Your task to perform on an android device: Go to Reddit.com Image 0: 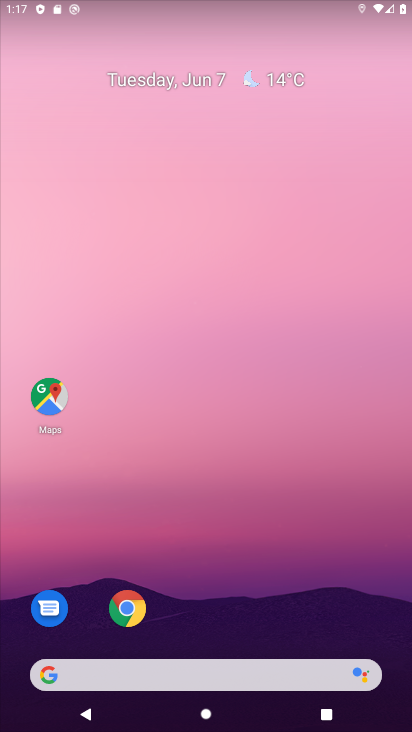
Step 0: drag from (357, 611) to (353, 99)
Your task to perform on an android device: Go to Reddit.com Image 1: 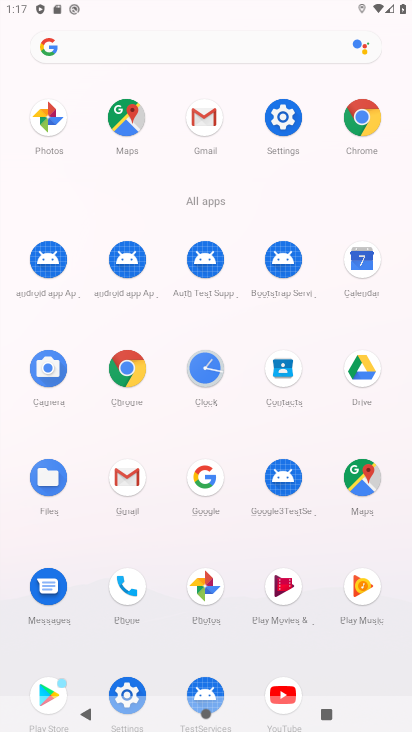
Step 1: drag from (177, 632) to (156, 179)
Your task to perform on an android device: Go to Reddit.com Image 2: 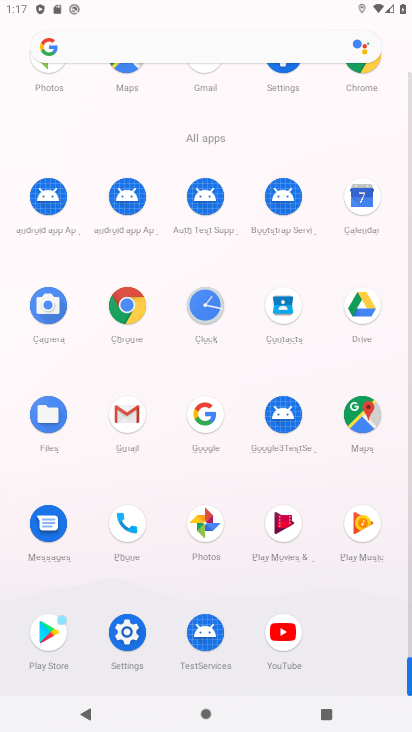
Step 2: click (133, 315)
Your task to perform on an android device: Go to Reddit.com Image 3: 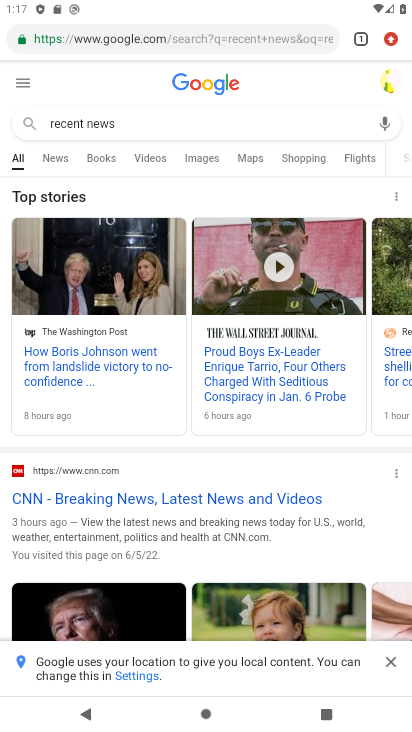
Step 3: click (248, 46)
Your task to perform on an android device: Go to Reddit.com Image 4: 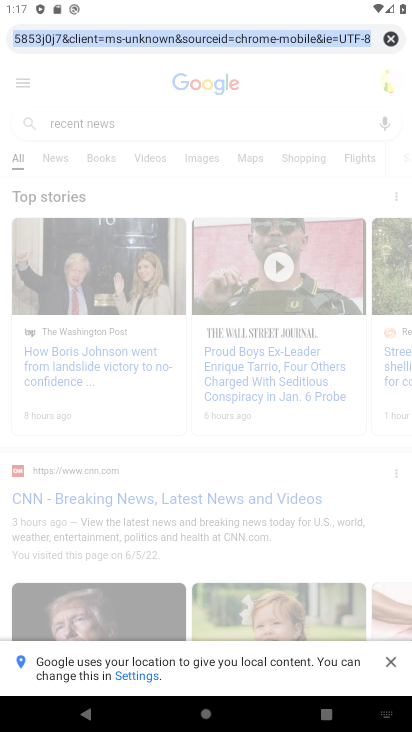
Step 4: click (396, 35)
Your task to perform on an android device: Go to Reddit.com Image 5: 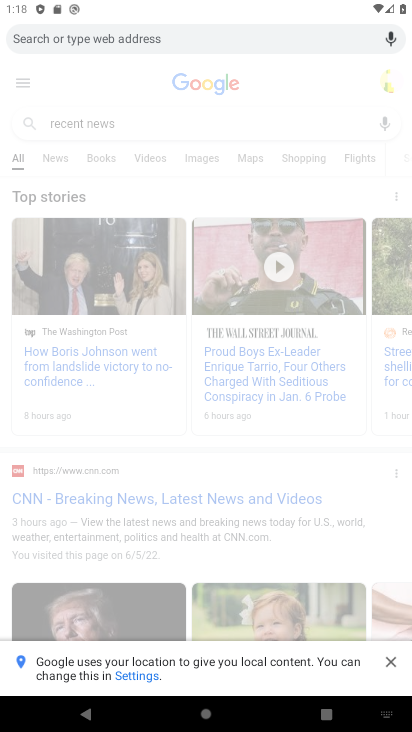
Step 5: type "reddit.com"
Your task to perform on an android device: Go to Reddit.com Image 6: 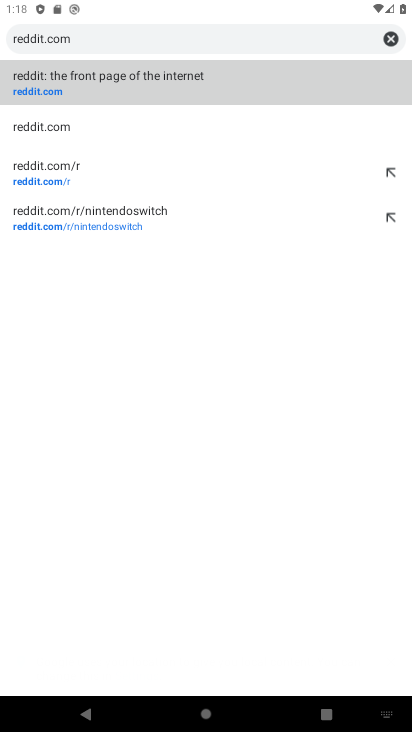
Step 6: click (172, 78)
Your task to perform on an android device: Go to Reddit.com Image 7: 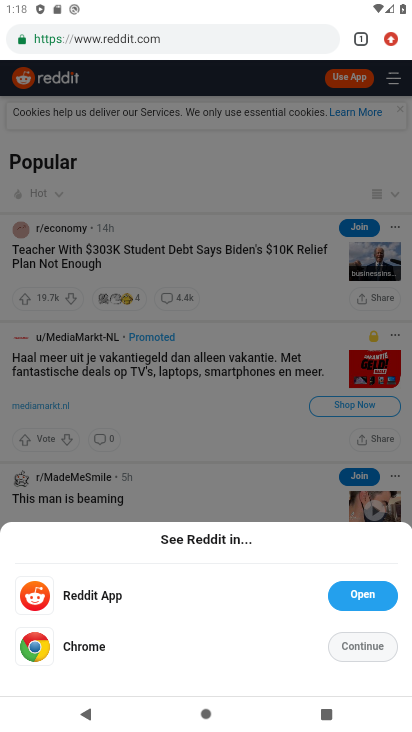
Step 7: task complete